Your task to perform on an android device: change notifications settings Image 0: 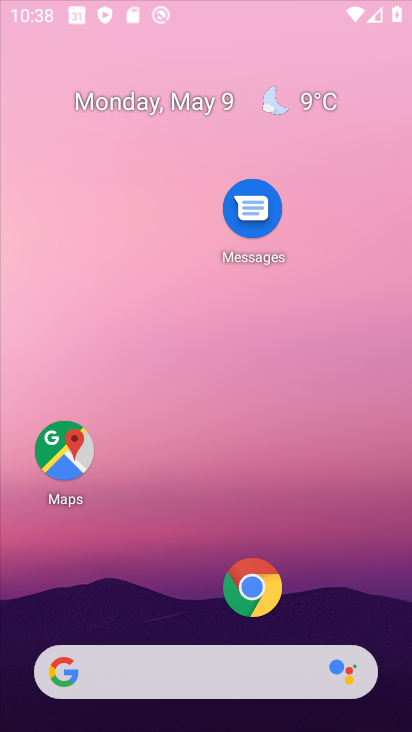
Step 0: drag from (260, 327) to (202, 312)
Your task to perform on an android device: change notifications settings Image 1: 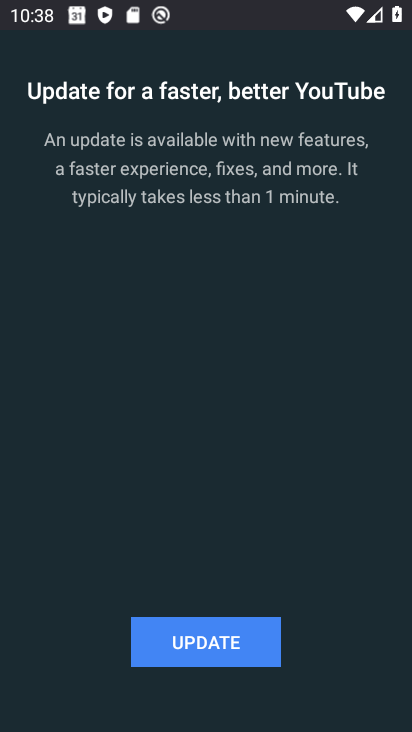
Step 1: press home button
Your task to perform on an android device: change notifications settings Image 2: 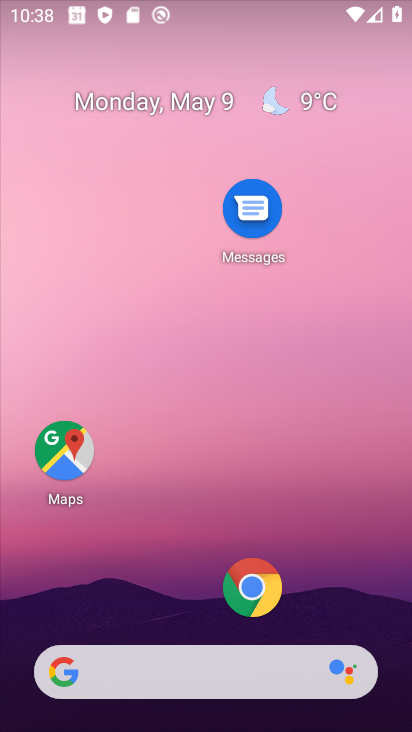
Step 2: drag from (195, 644) to (201, 74)
Your task to perform on an android device: change notifications settings Image 3: 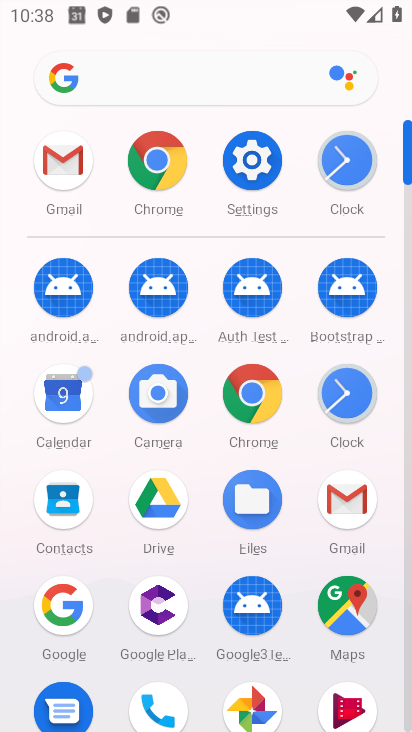
Step 3: click (256, 164)
Your task to perform on an android device: change notifications settings Image 4: 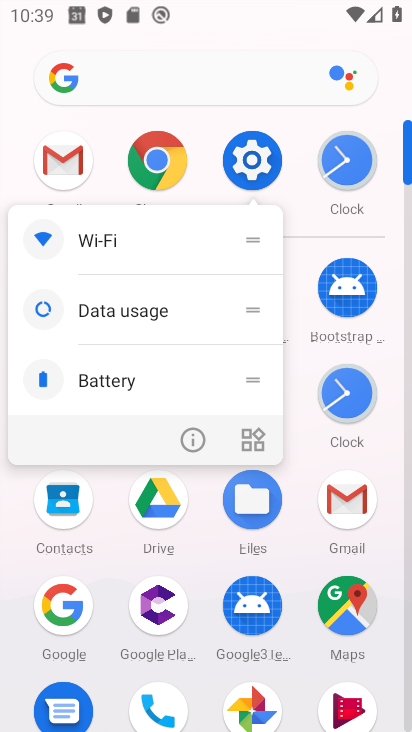
Step 4: click (198, 439)
Your task to perform on an android device: change notifications settings Image 5: 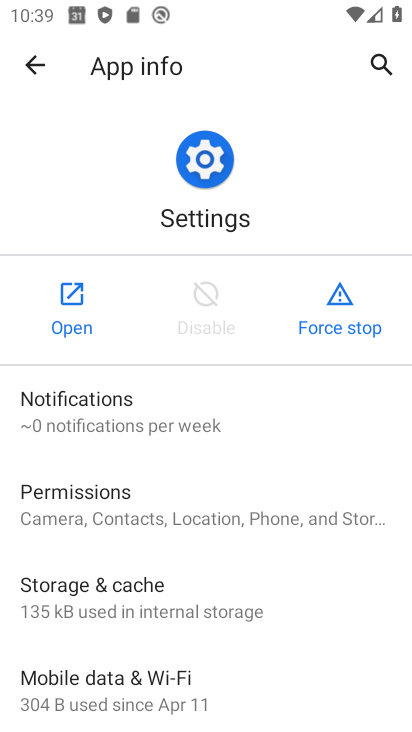
Step 5: click (75, 314)
Your task to perform on an android device: change notifications settings Image 6: 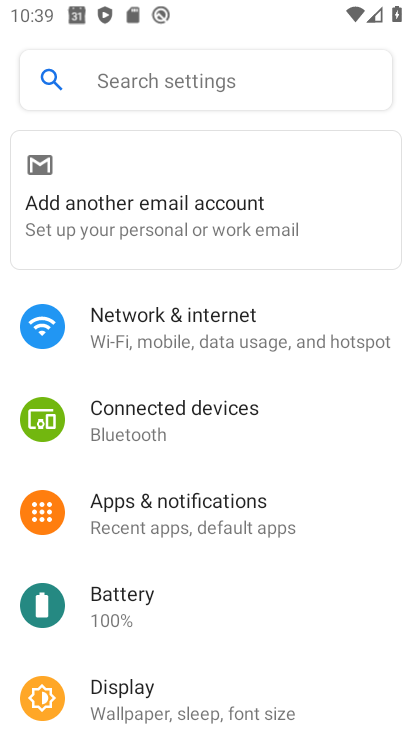
Step 6: click (190, 527)
Your task to perform on an android device: change notifications settings Image 7: 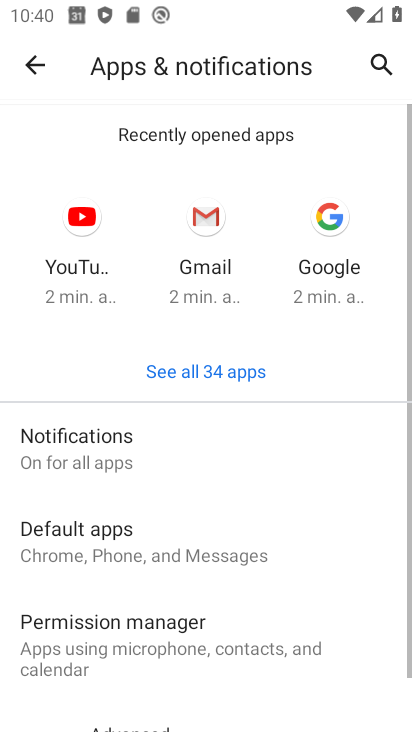
Step 7: click (149, 443)
Your task to perform on an android device: change notifications settings Image 8: 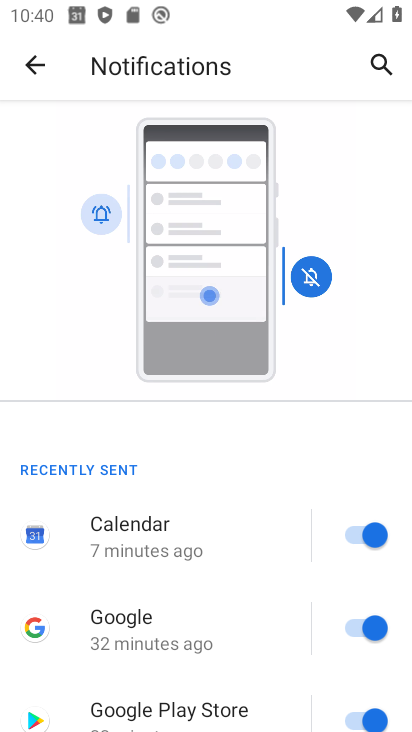
Step 8: click (367, 622)
Your task to perform on an android device: change notifications settings Image 9: 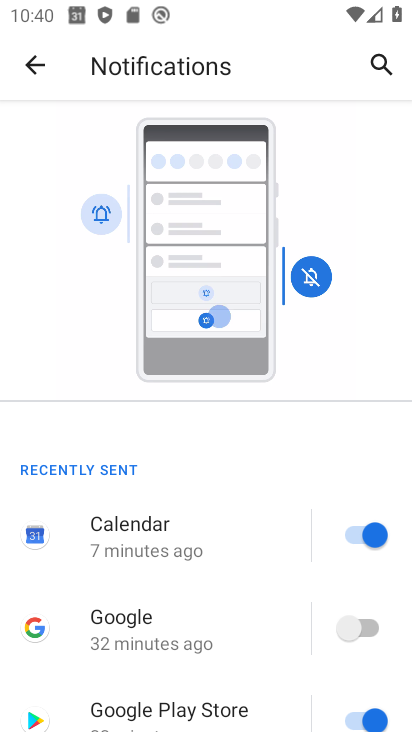
Step 9: task complete